Your task to perform on an android device: Open the web browser Image 0: 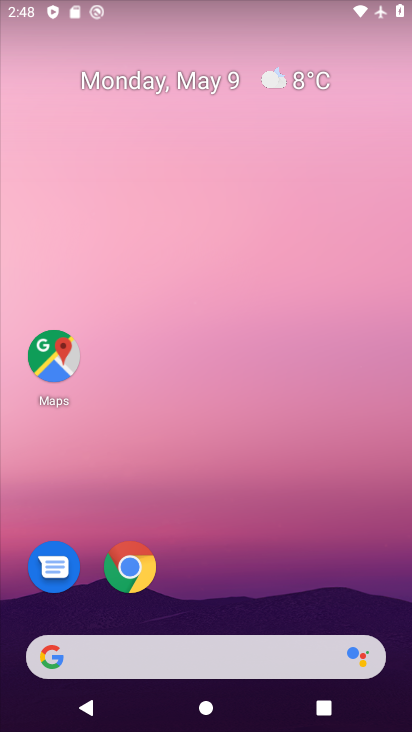
Step 0: drag from (242, 587) to (221, 0)
Your task to perform on an android device: Open the web browser Image 1: 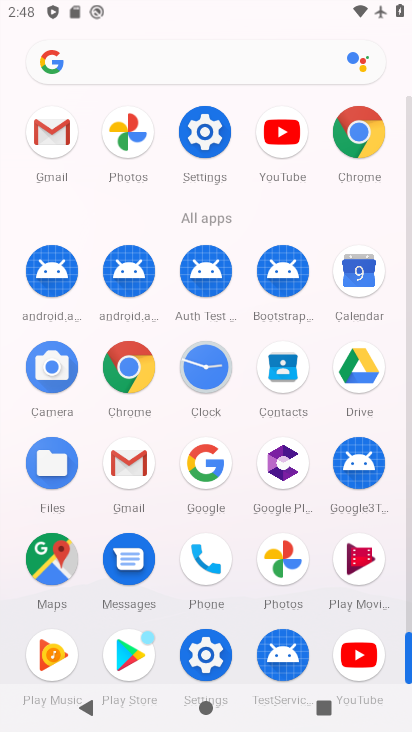
Step 1: click (130, 360)
Your task to perform on an android device: Open the web browser Image 2: 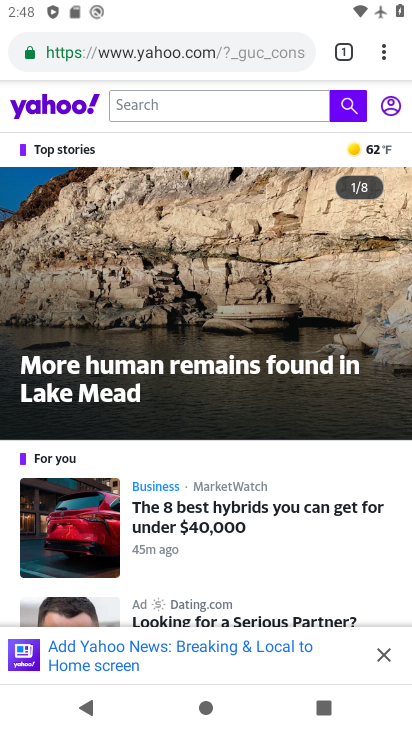
Step 2: task complete